Your task to perform on an android device: delete location history Image 0: 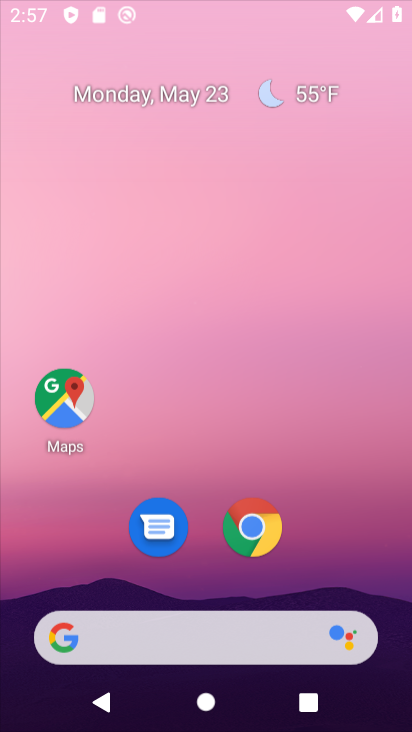
Step 0: press home button
Your task to perform on an android device: delete location history Image 1: 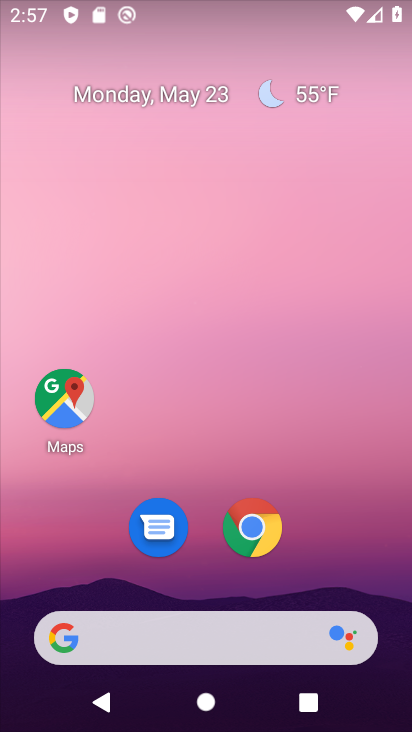
Step 1: drag from (206, 374) to (224, 35)
Your task to perform on an android device: delete location history Image 2: 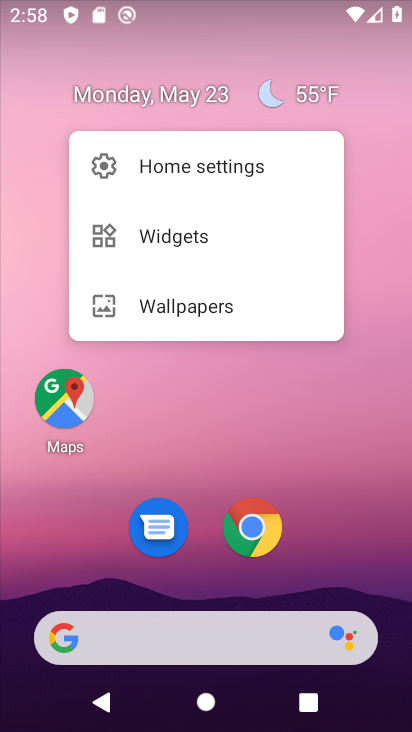
Step 2: click (211, 379)
Your task to perform on an android device: delete location history Image 3: 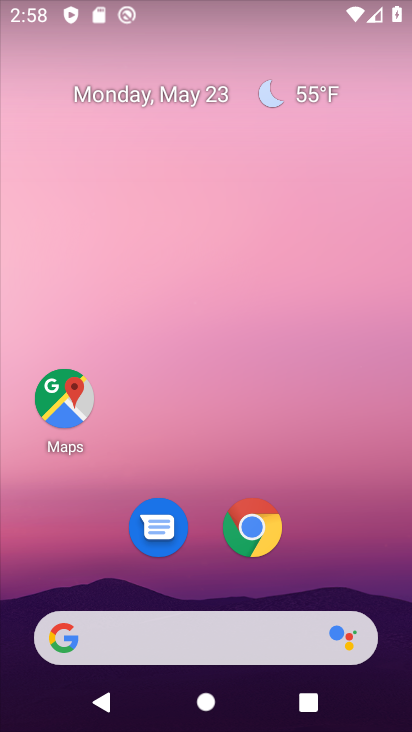
Step 3: drag from (208, 595) to (210, 116)
Your task to perform on an android device: delete location history Image 4: 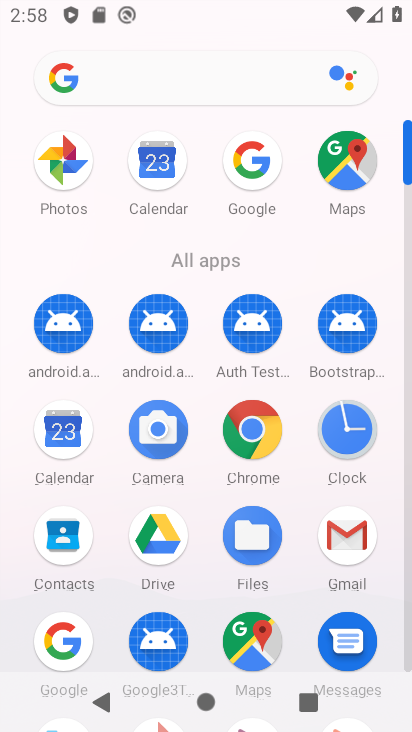
Step 4: click (348, 157)
Your task to perform on an android device: delete location history Image 5: 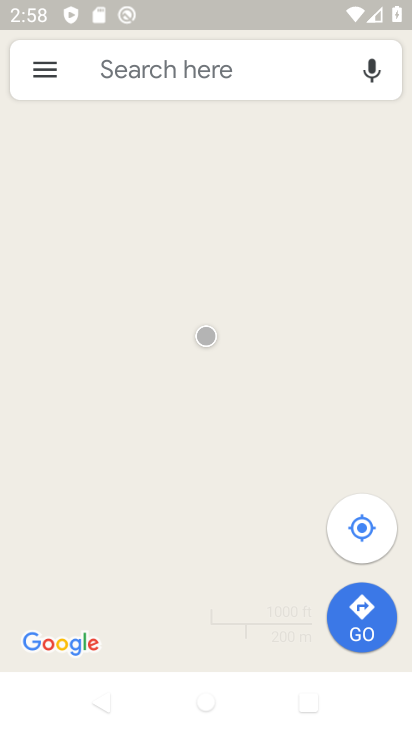
Step 5: click (37, 64)
Your task to perform on an android device: delete location history Image 6: 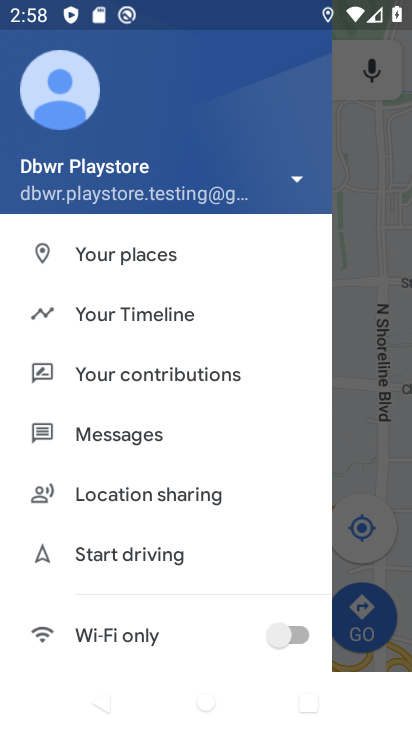
Step 6: click (160, 314)
Your task to perform on an android device: delete location history Image 7: 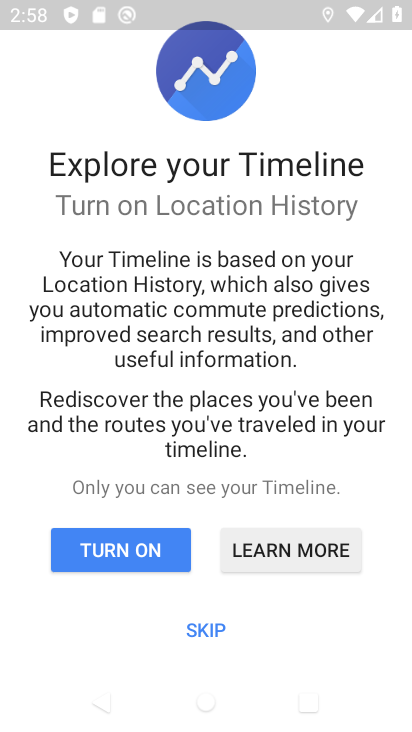
Step 7: click (121, 550)
Your task to perform on an android device: delete location history Image 8: 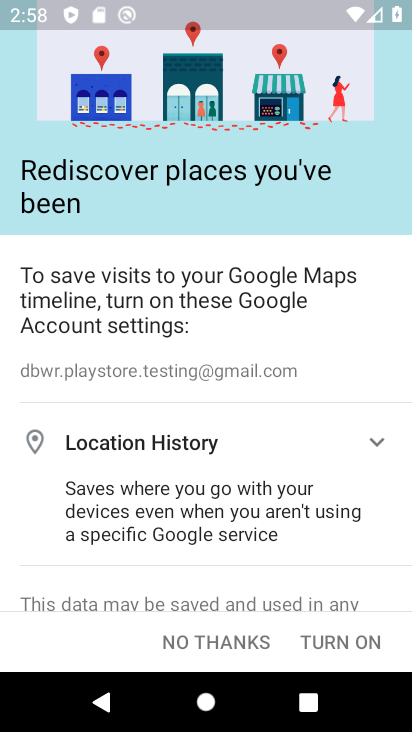
Step 8: click (346, 644)
Your task to perform on an android device: delete location history Image 9: 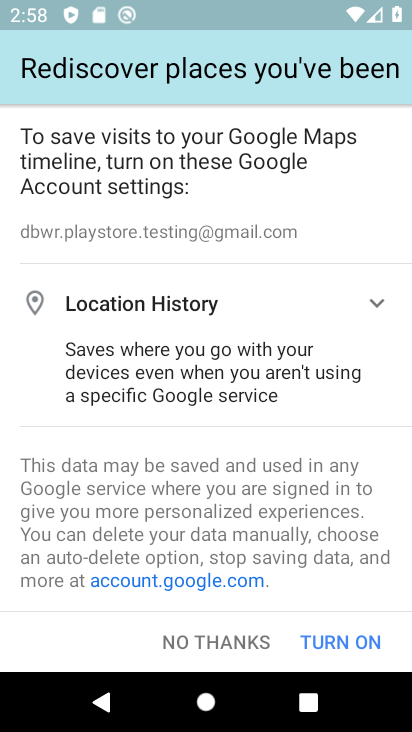
Step 9: click (346, 644)
Your task to perform on an android device: delete location history Image 10: 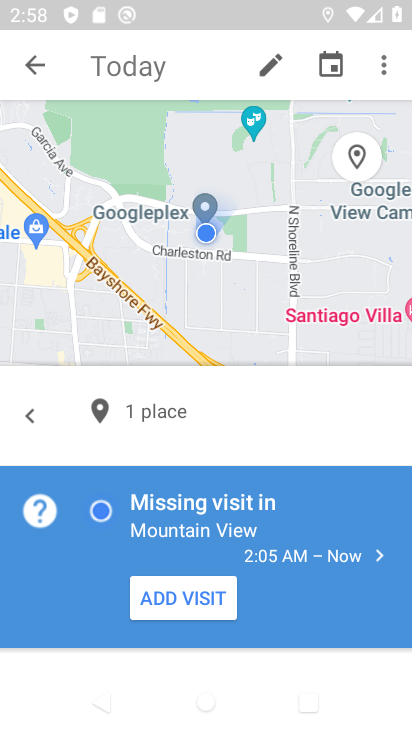
Step 10: click (385, 63)
Your task to perform on an android device: delete location history Image 11: 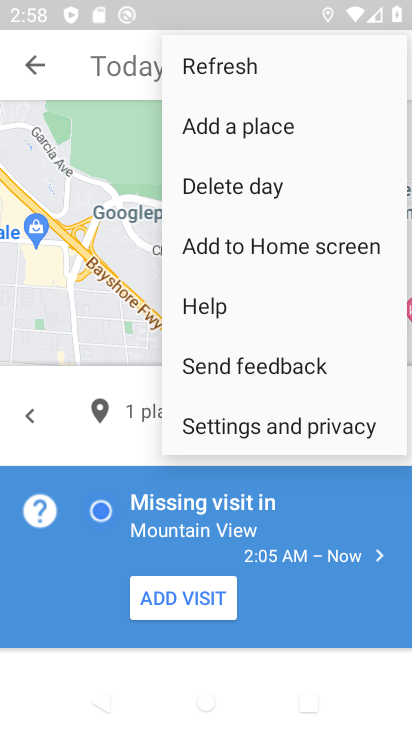
Step 11: click (298, 428)
Your task to perform on an android device: delete location history Image 12: 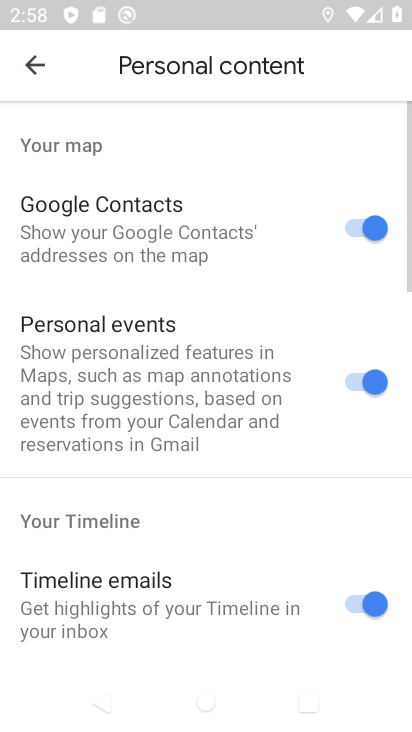
Step 12: drag from (188, 623) to (193, 116)
Your task to perform on an android device: delete location history Image 13: 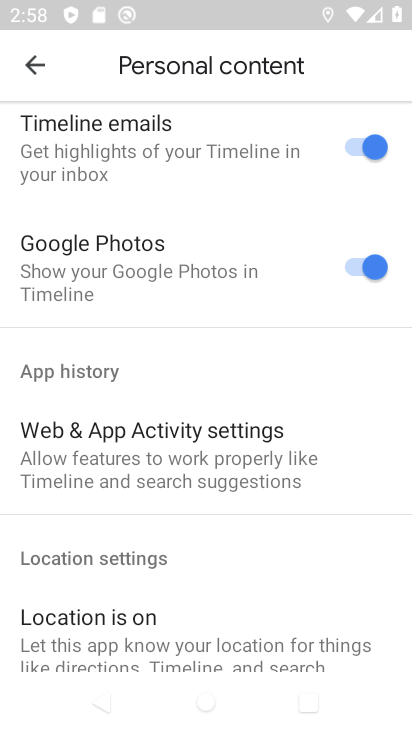
Step 13: drag from (220, 537) to (227, 156)
Your task to perform on an android device: delete location history Image 14: 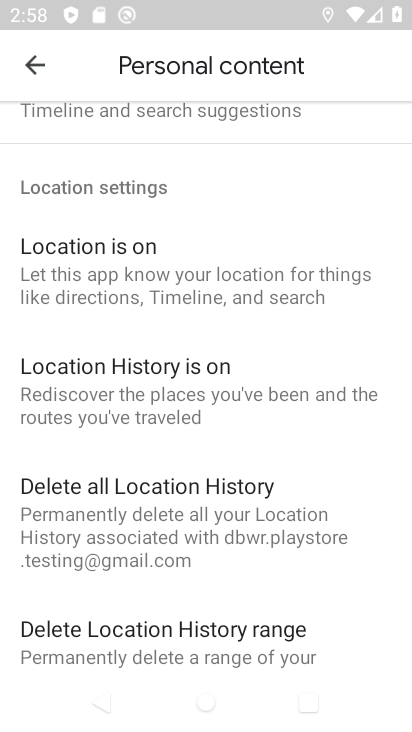
Step 14: click (135, 516)
Your task to perform on an android device: delete location history Image 15: 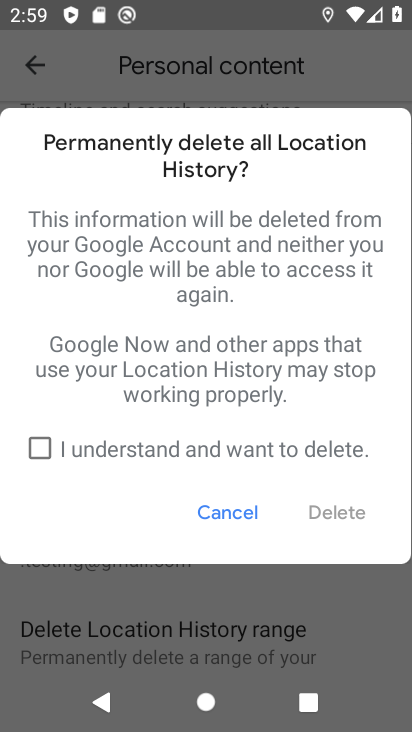
Step 15: click (43, 444)
Your task to perform on an android device: delete location history Image 16: 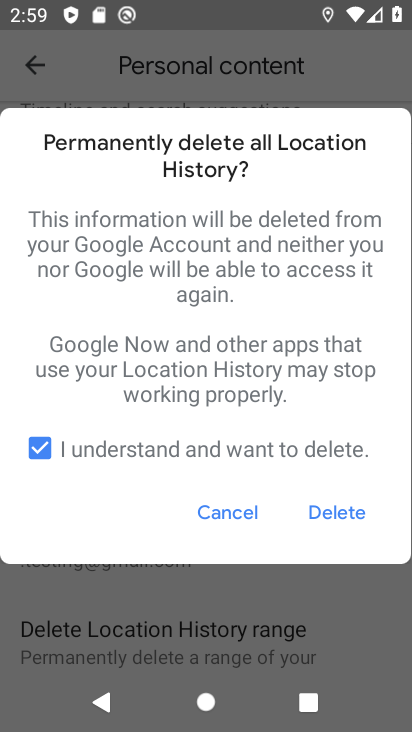
Step 16: click (334, 509)
Your task to perform on an android device: delete location history Image 17: 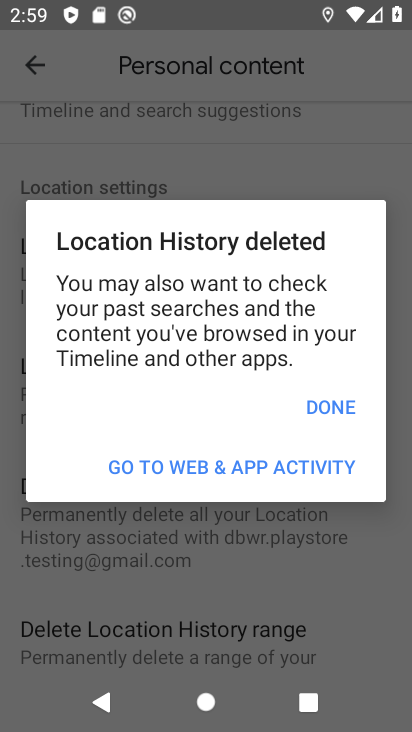
Step 17: click (332, 410)
Your task to perform on an android device: delete location history Image 18: 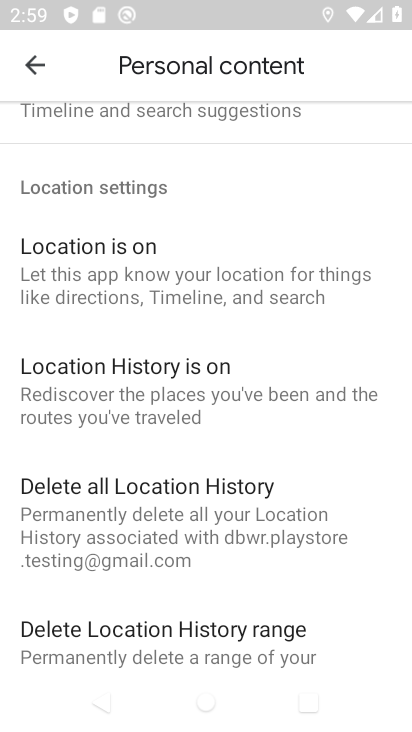
Step 18: task complete